Your task to perform on an android device: Show me productivity apps on the Play Store Image 0: 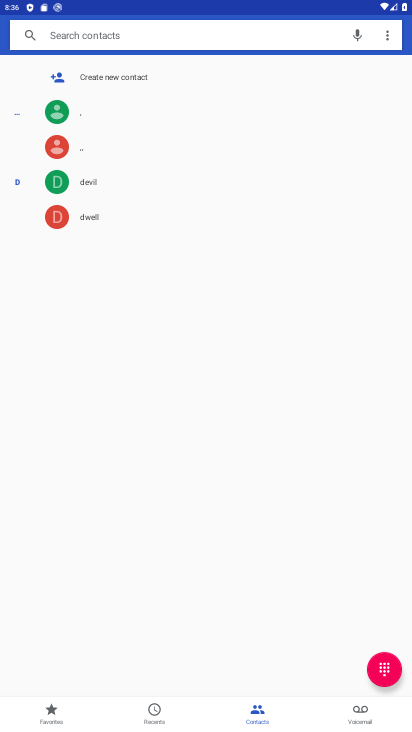
Step 0: press home button
Your task to perform on an android device: Show me productivity apps on the Play Store Image 1: 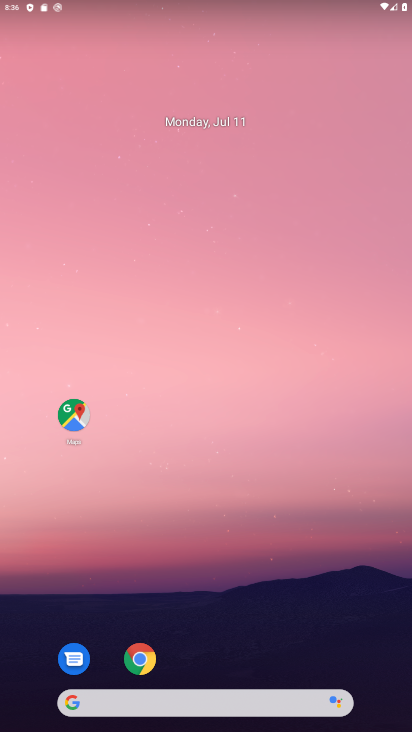
Step 1: drag from (38, 723) to (400, 657)
Your task to perform on an android device: Show me productivity apps on the Play Store Image 2: 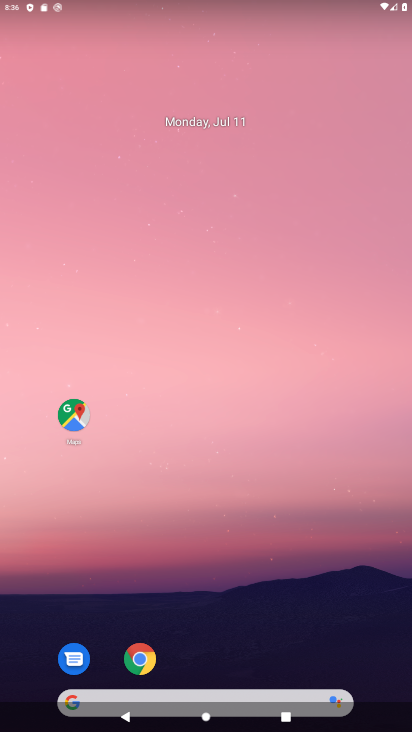
Step 2: drag from (2, 712) to (407, 177)
Your task to perform on an android device: Show me productivity apps on the Play Store Image 3: 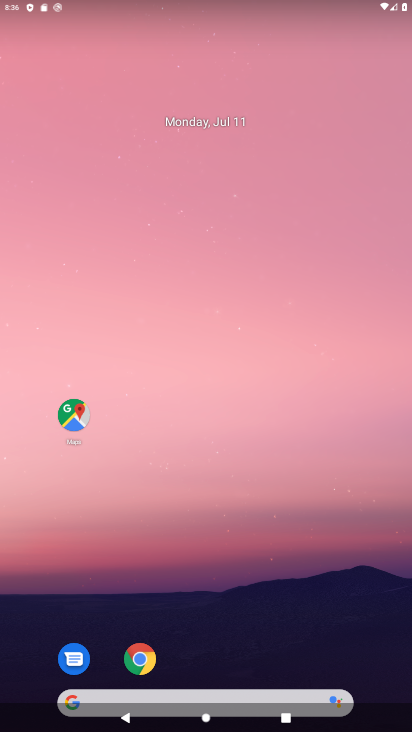
Step 3: drag from (76, 631) to (316, 628)
Your task to perform on an android device: Show me productivity apps on the Play Store Image 4: 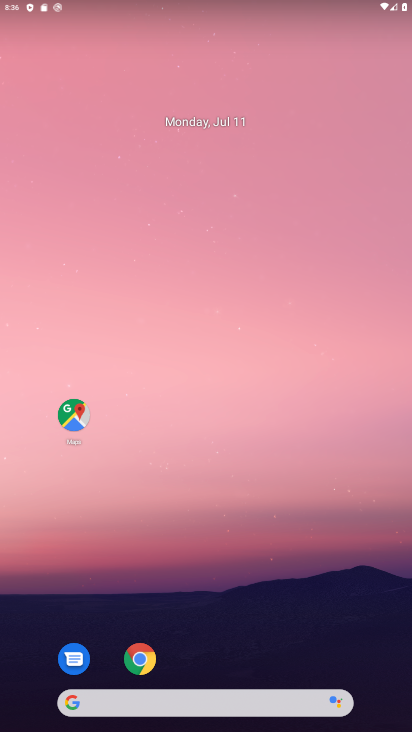
Step 4: drag from (45, 703) to (250, 97)
Your task to perform on an android device: Show me productivity apps on the Play Store Image 5: 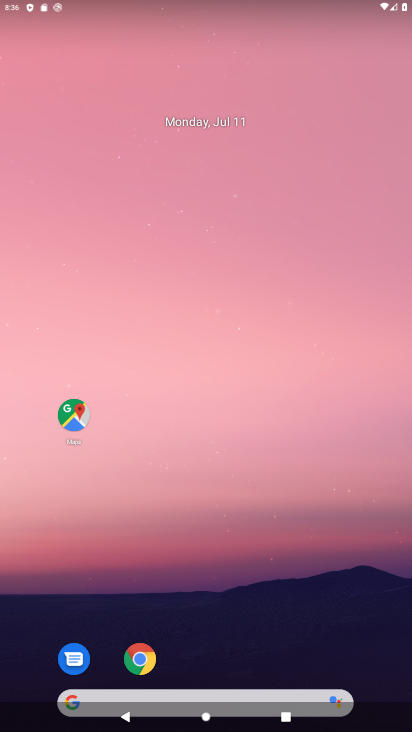
Step 5: drag from (23, 717) to (282, 29)
Your task to perform on an android device: Show me productivity apps on the Play Store Image 6: 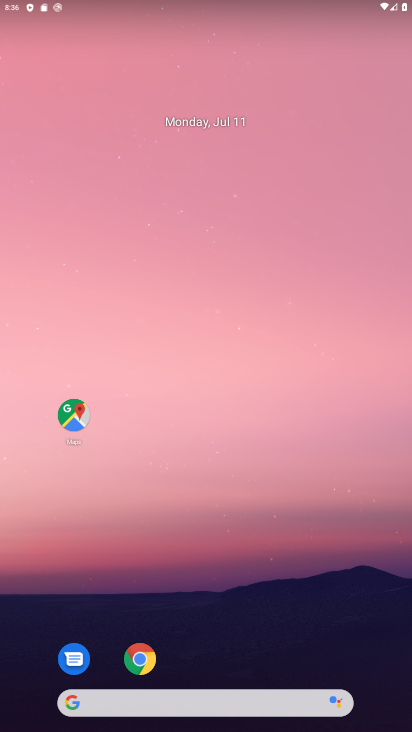
Step 6: drag from (120, 475) to (291, 6)
Your task to perform on an android device: Show me productivity apps on the Play Store Image 7: 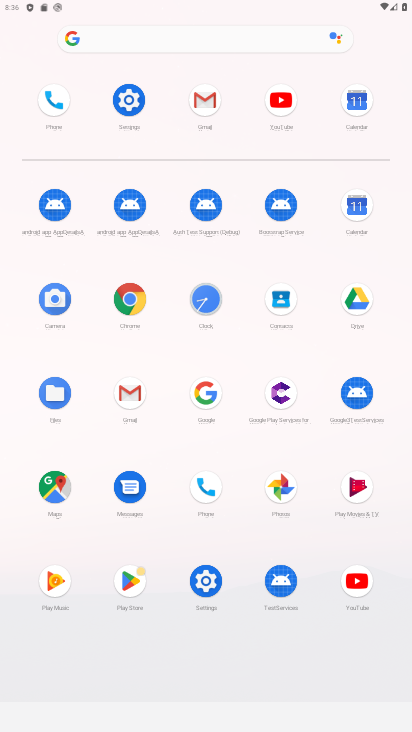
Step 7: click (128, 585)
Your task to perform on an android device: Show me productivity apps on the Play Store Image 8: 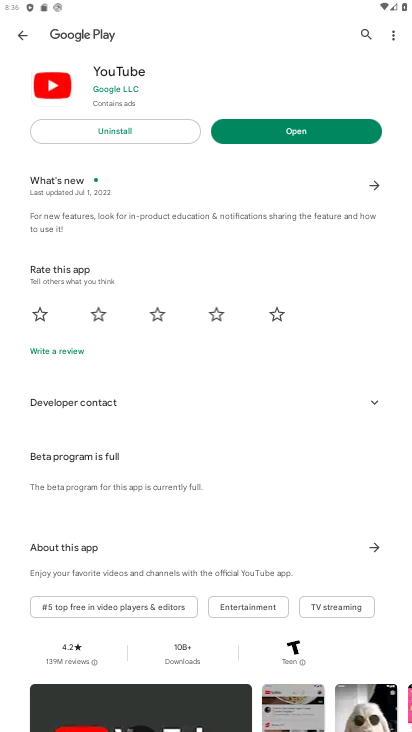
Step 8: click (16, 30)
Your task to perform on an android device: Show me productivity apps on the Play Store Image 9: 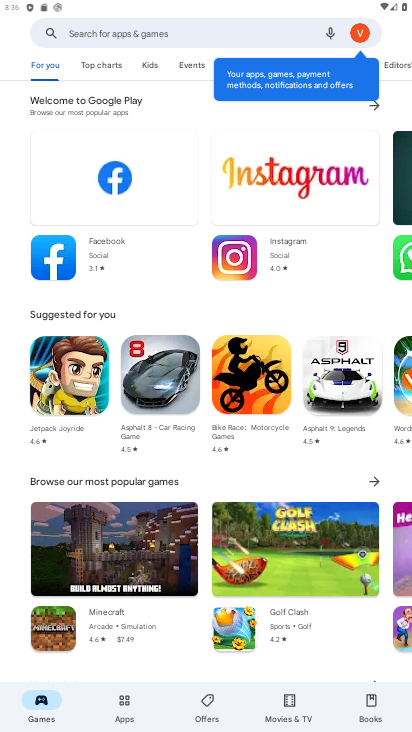
Step 9: click (137, 27)
Your task to perform on an android device: Show me productivity apps on the Play Store Image 10: 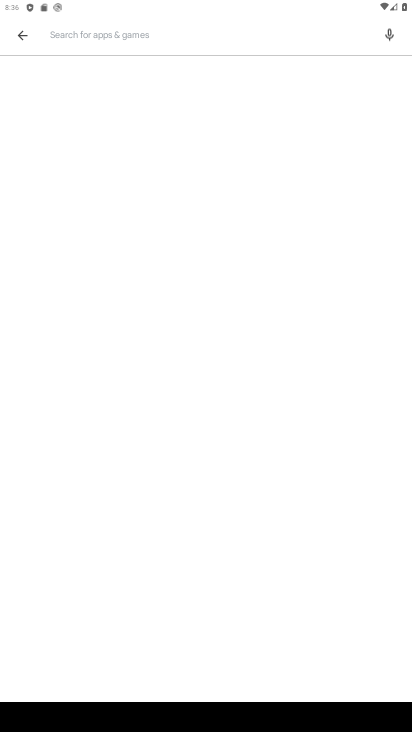
Step 10: type "productivity apps"
Your task to perform on an android device: Show me productivity apps on the Play Store Image 11: 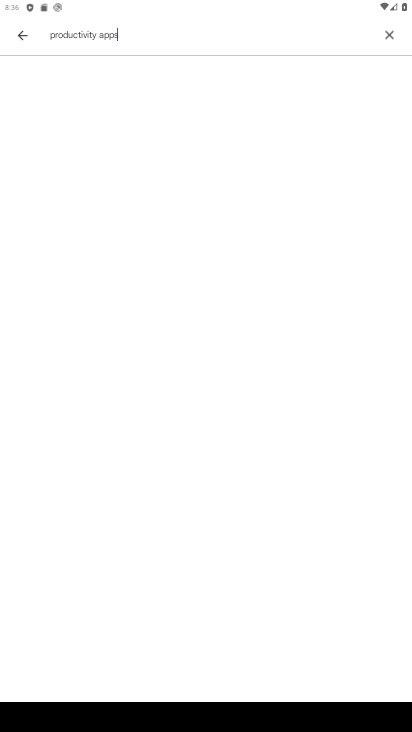
Step 11: type ""
Your task to perform on an android device: Show me productivity apps on the Play Store Image 12: 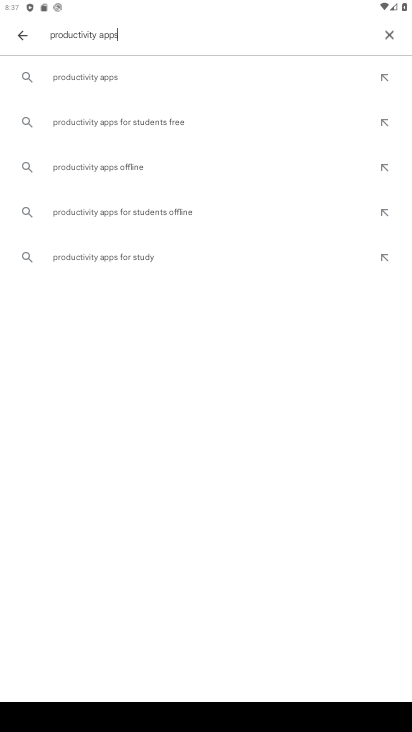
Step 12: click (61, 76)
Your task to perform on an android device: Show me productivity apps on the Play Store Image 13: 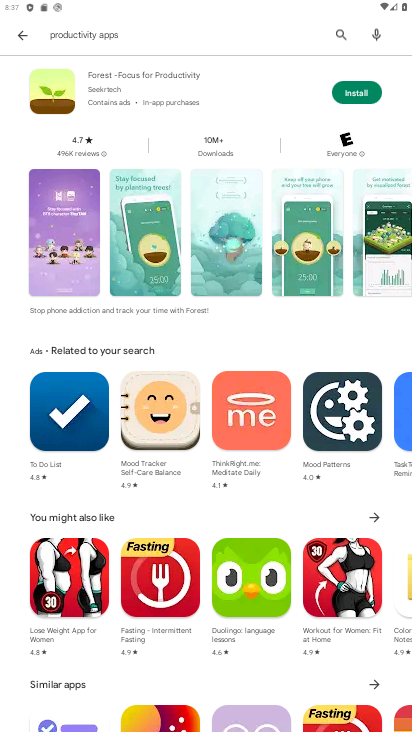
Step 13: task complete